Your task to perform on an android device: Go to Maps Image 0: 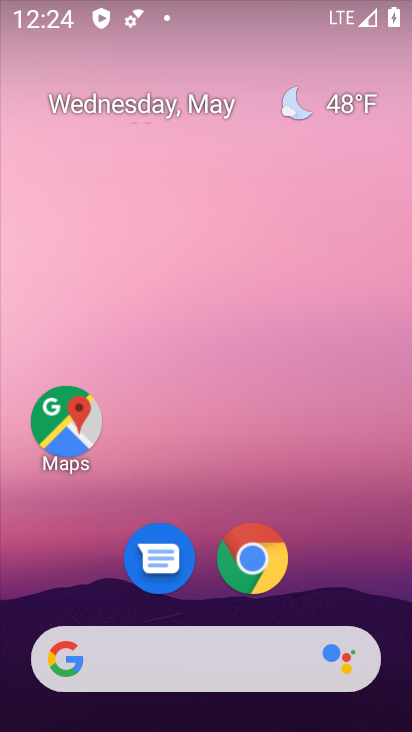
Step 0: click (64, 427)
Your task to perform on an android device: Go to Maps Image 1: 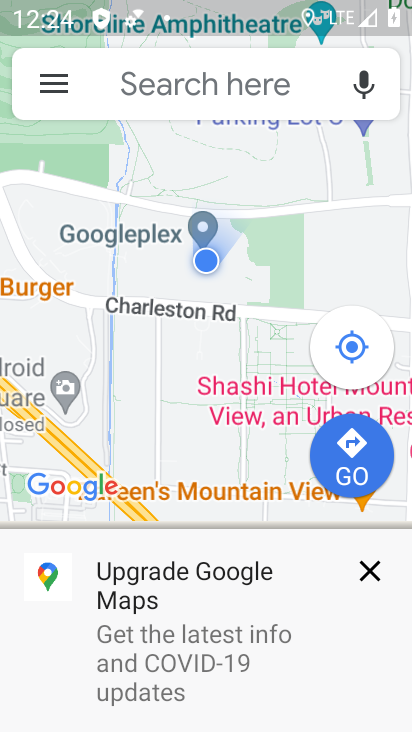
Step 1: task complete